Your task to perform on an android device: delete browsing data in the chrome app Image 0: 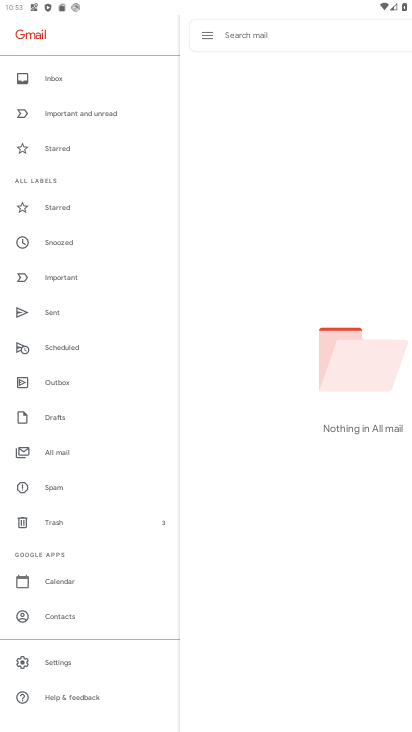
Step 0: press home button
Your task to perform on an android device: delete browsing data in the chrome app Image 1: 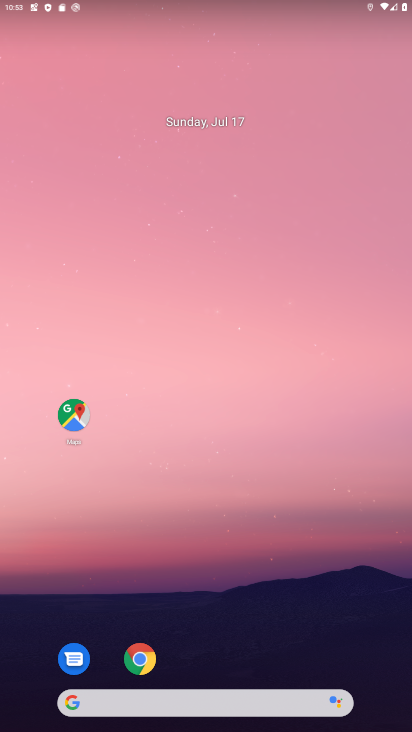
Step 1: drag from (290, 421) to (267, 84)
Your task to perform on an android device: delete browsing data in the chrome app Image 2: 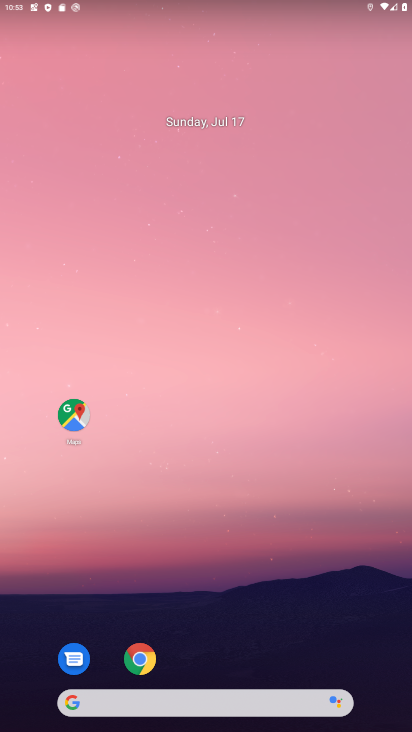
Step 2: drag from (250, 635) to (298, 98)
Your task to perform on an android device: delete browsing data in the chrome app Image 3: 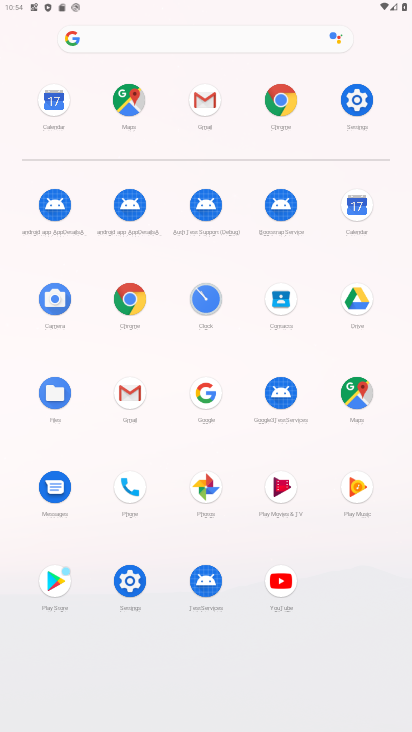
Step 3: click (278, 98)
Your task to perform on an android device: delete browsing data in the chrome app Image 4: 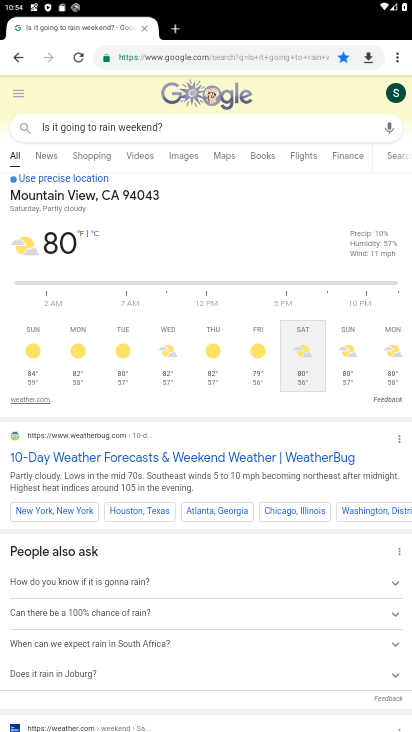
Step 4: drag from (399, 55) to (282, 212)
Your task to perform on an android device: delete browsing data in the chrome app Image 5: 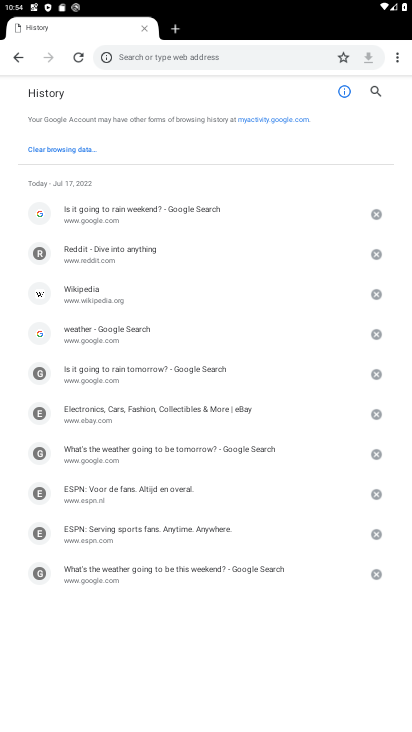
Step 5: click (74, 149)
Your task to perform on an android device: delete browsing data in the chrome app Image 6: 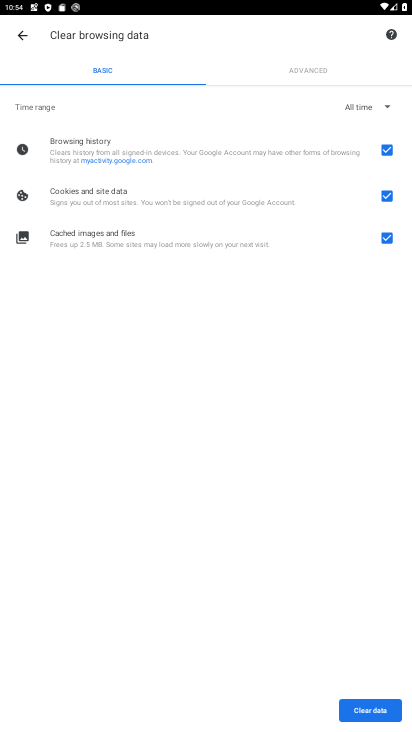
Step 6: click (384, 711)
Your task to perform on an android device: delete browsing data in the chrome app Image 7: 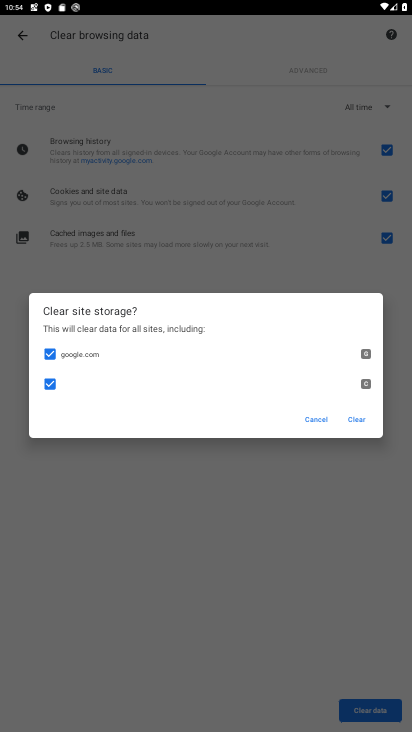
Step 7: click (355, 426)
Your task to perform on an android device: delete browsing data in the chrome app Image 8: 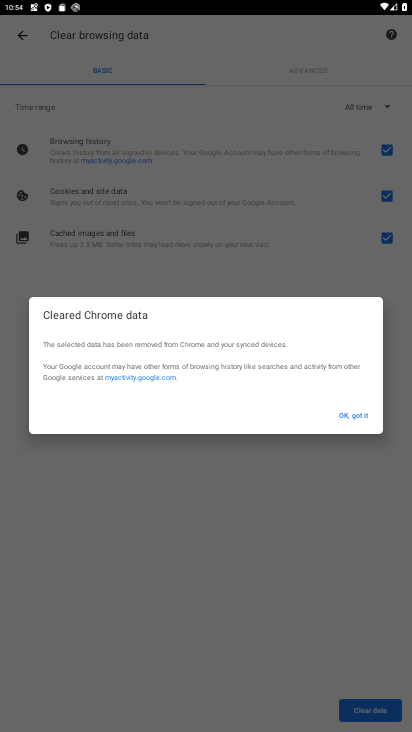
Step 8: task complete